Your task to perform on an android device: open the mobile data screen to see how much data has been used Image 0: 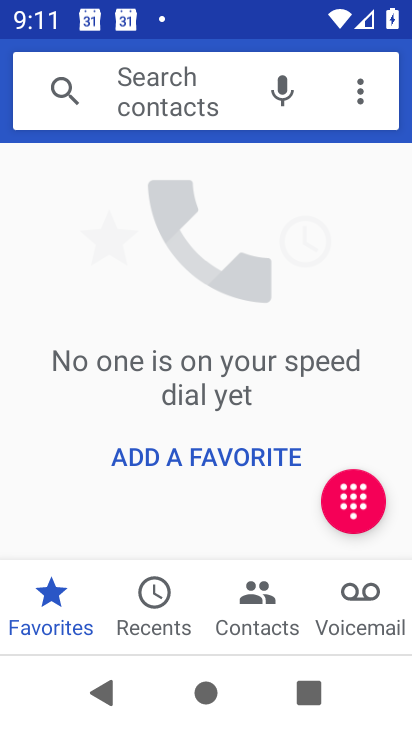
Step 0: press home button
Your task to perform on an android device: open the mobile data screen to see how much data has been used Image 1: 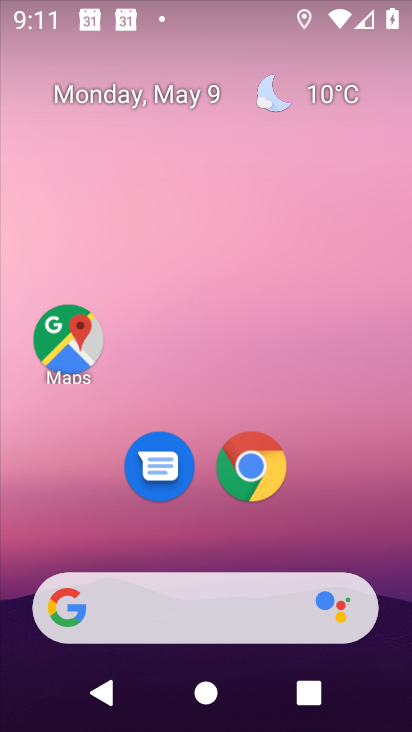
Step 1: drag from (229, 544) to (261, 10)
Your task to perform on an android device: open the mobile data screen to see how much data has been used Image 2: 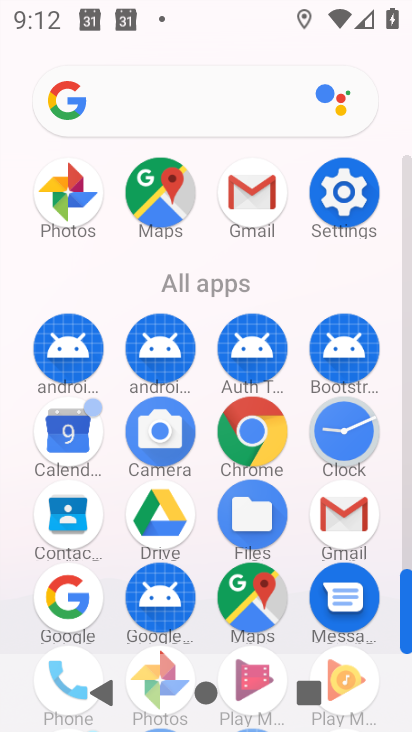
Step 2: click (367, 180)
Your task to perform on an android device: open the mobile data screen to see how much data has been used Image 3: 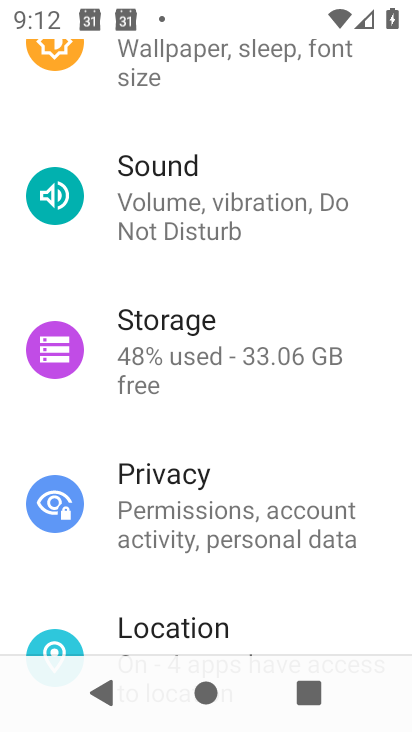
Step 3: drag from (129, 333) to (216, 520)
Your task to perform on an android device: open the mobile data screen to see how much data has been used Image 4: 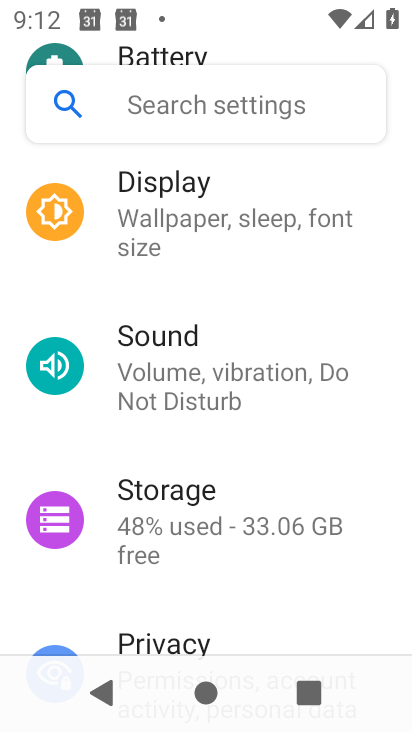
Step 4: drag from (268, 342) to (286, 547)
Your task to perform on an android device: open the mobile data screen to see how much data has been used Image 5: 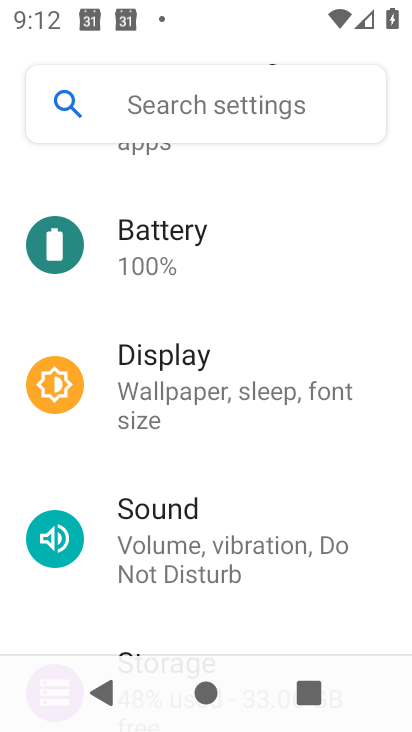
Step 5: drag from (278, 290) to (299, 459)
Your task to perform on an android device: open the mobile data screen to see how much data has been used Image 6: 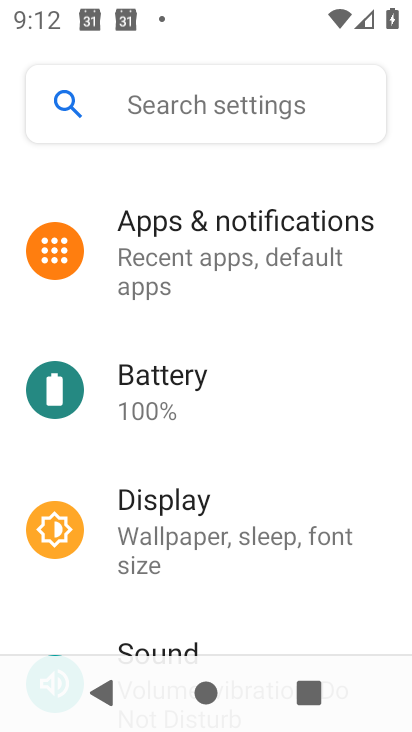
Step 6: drag from (273, 317) to (323, 490)
Your task to perform on an android device: open the mobile data screen to see how much data has been used Image 7: 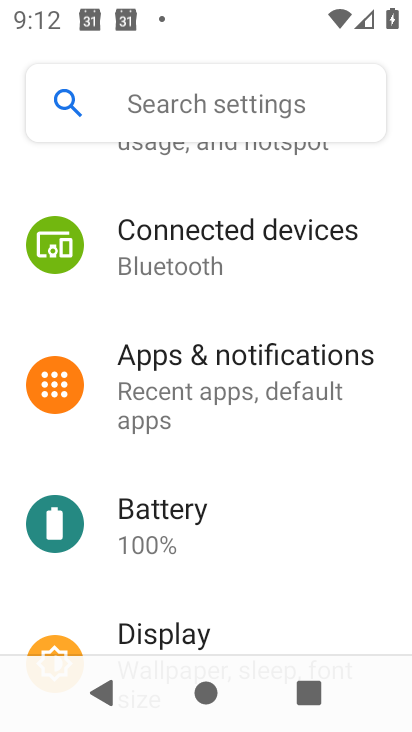
Step 7: drag from (275, 348) to (285, 581)
Your task to perform on an android device: open the mobile data screen to see how much data has been used Image 8: 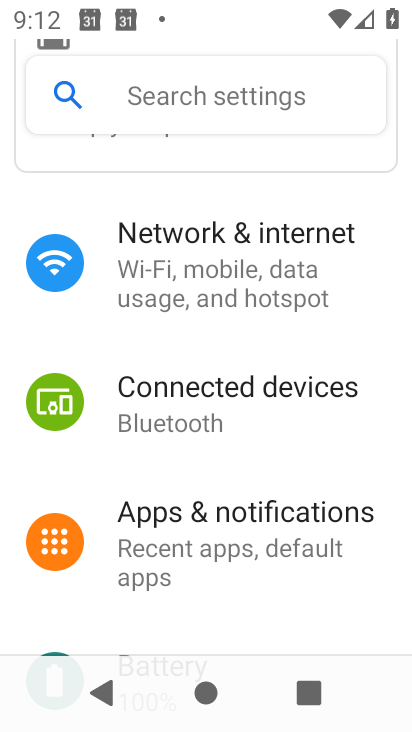
Step 8: click (249, 297)
Your task to perform on an android device: open the mobile data screen to see how much data has been used Image 9: 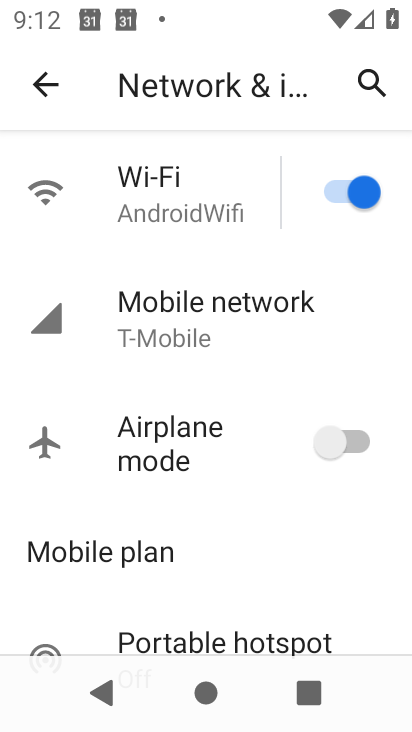
Step 9: click (118, 335)
Your task to perform on an android device: open the mobile data screen to see how much data has been used Image 10: 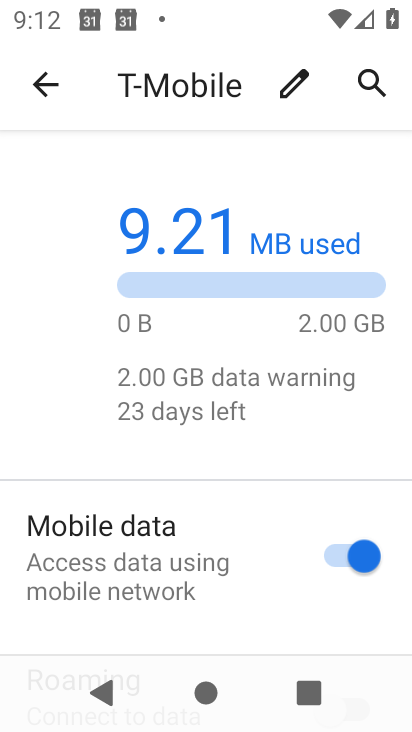
Step 10: drag from (209, 580) to (198, 252)
Your task to perform on an android device: open the mobile data screen to see how much data has been used Image 11: 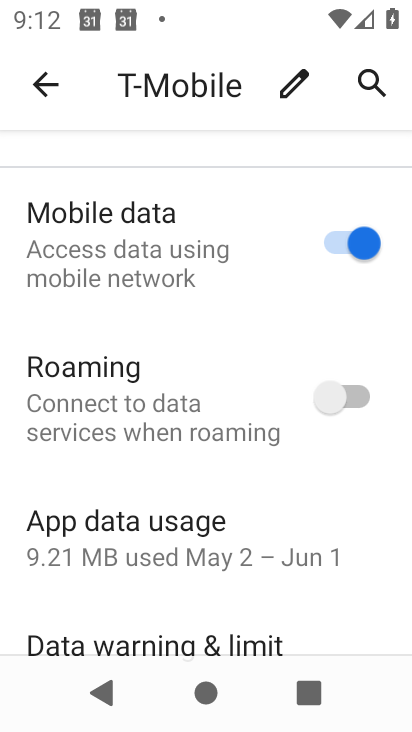
Step 11: click (134, 525)
Your task to perform on an android device: open the mobile data screen to see how much data has been used Image 12: 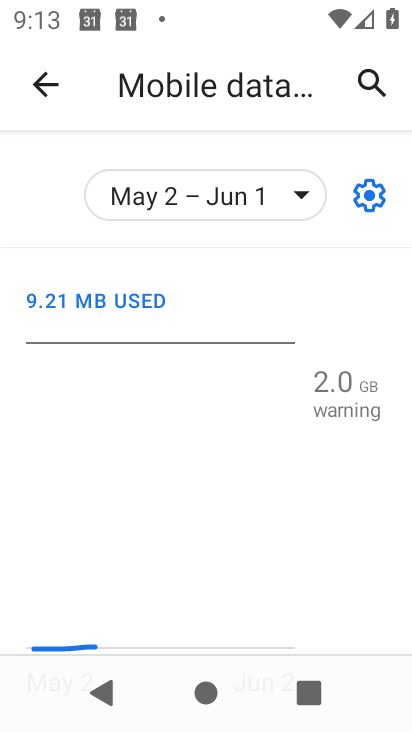
Step 12: task complete